Your task to perform on an android device: turn off improve location accuracy Image 0: 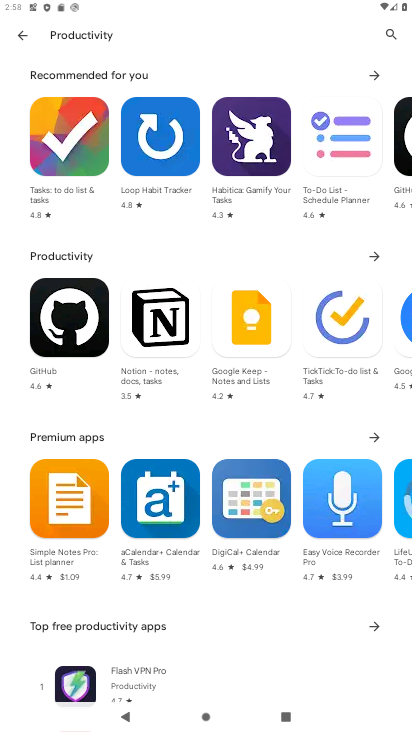
Step 0: press home button
Your task to perform on an android device: turn off improve location accuracy Image 1: 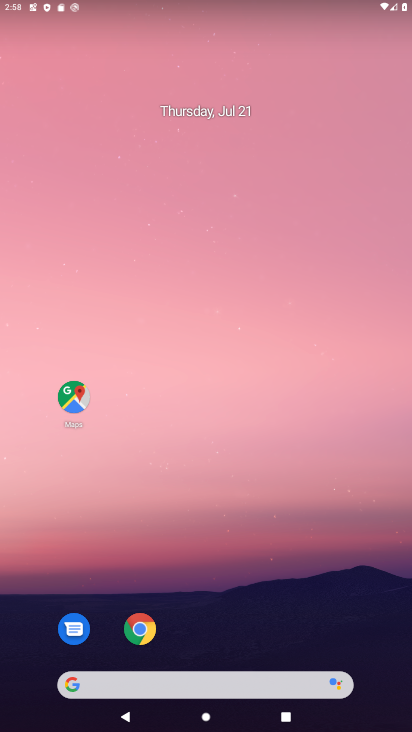
Step 1: drag from (220, 668) to (249, 81)
Your task to perform on an android device: turn off improve location accuracy Image 2: 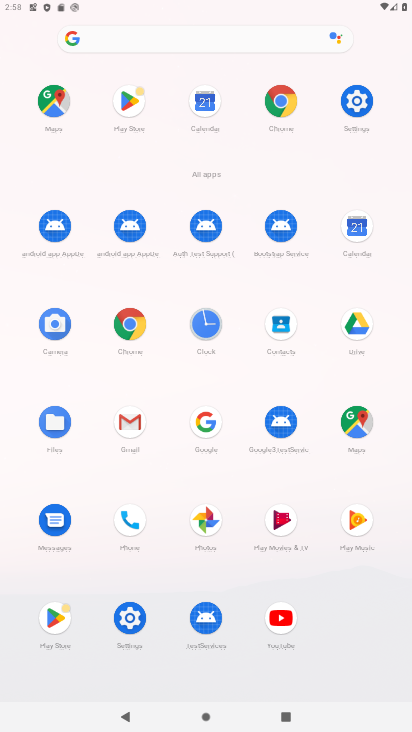
Step 2: click (362, 110)
Your task to perform on an android device: turn off improve location accuracy Image 3: 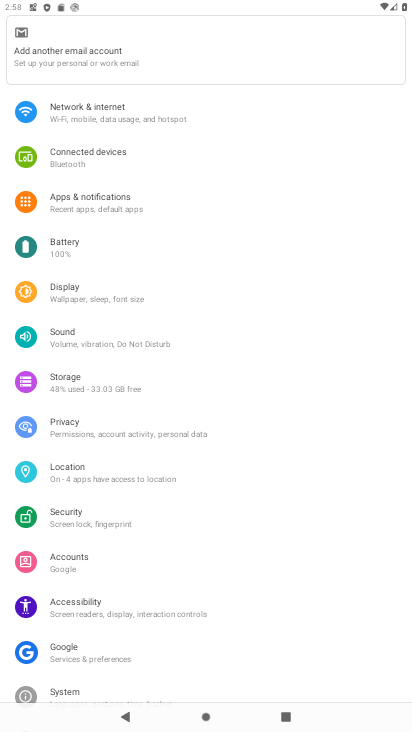
Step 3: drag from (121, 613) to (119, 67)
Your task to perform on an android device: turn off improve location accuracy Image 4: 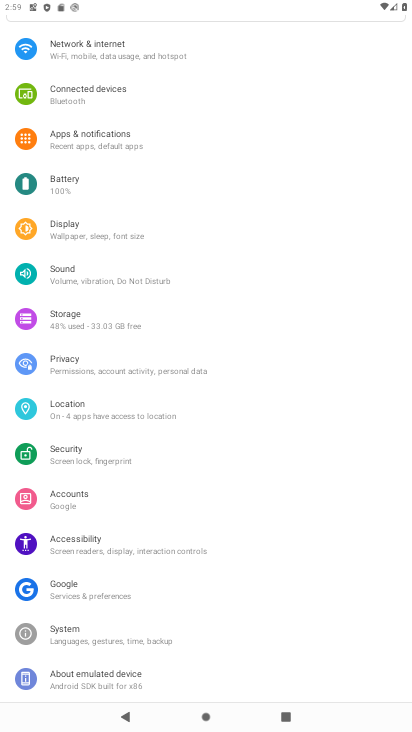
Step 4: click (87, 416)
Your task to perform on an android device: turn off improve location accuracy Image 5: 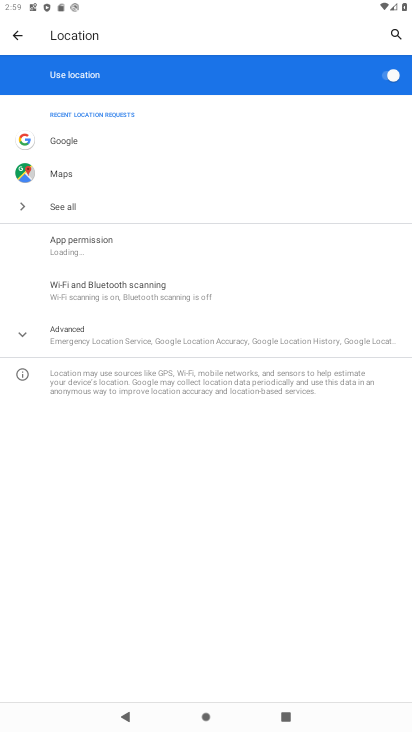
Step 5: click (138, 342)
Your task to perform on an android device: turn off improve location accuracy Image 6: 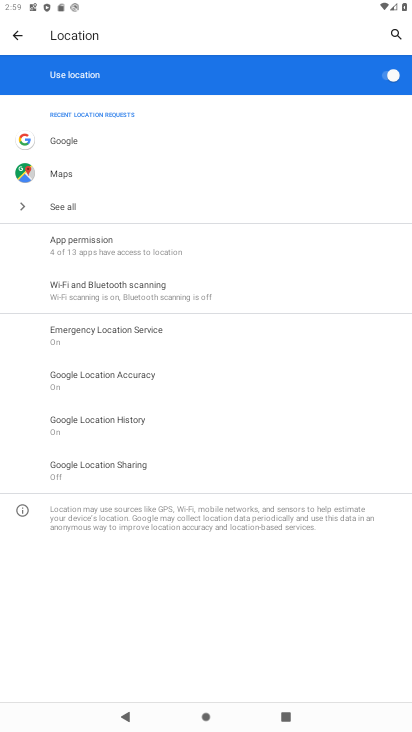
Step 6: click (156, 373)
Your task to perform on an android device: turn off improve location accuracy Image 7: 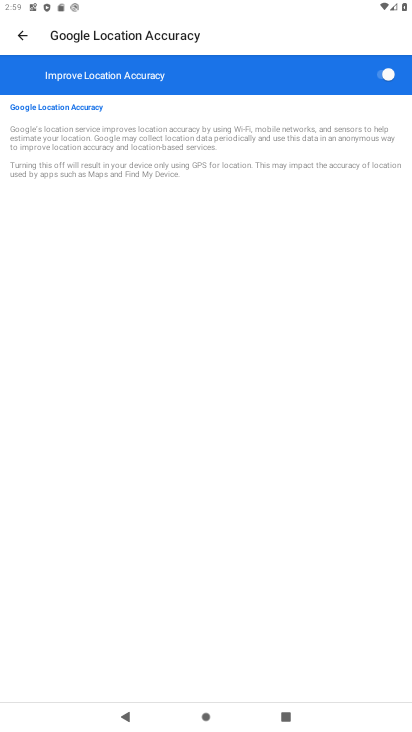
Step 7: click (362, 79)
Your task to perform on an android device: turn off improve location accuracy Image 8: 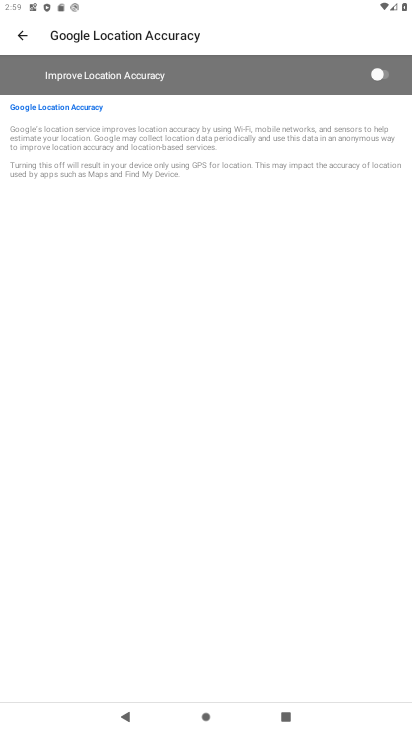
Step 8: task complete